Your task to perform on an android device: turn off priority inbox in the gmail app Image 0: 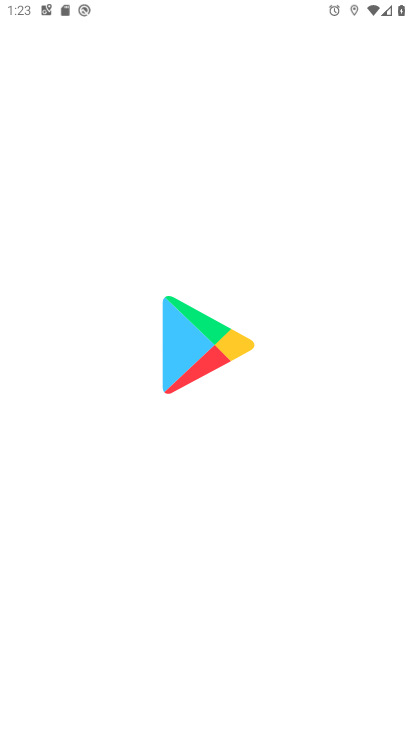
Step 0: press home button
Your task to perform on an android device: turn off priority inbox in the gmail app Image 1: 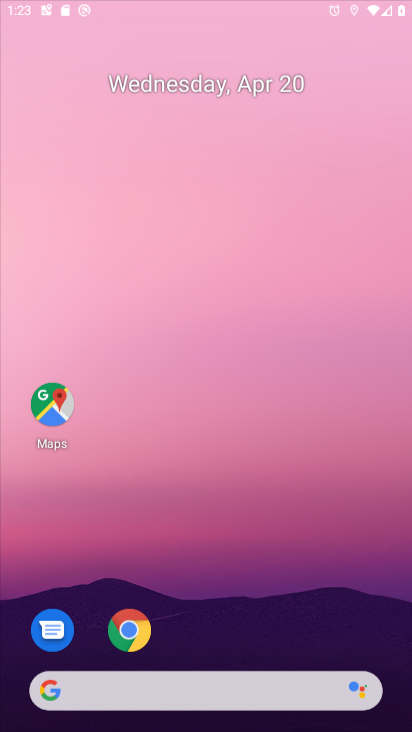
Step 1: press home button
Your task to perform on an android device: turn off priority inbox in the gmail app Image 2: 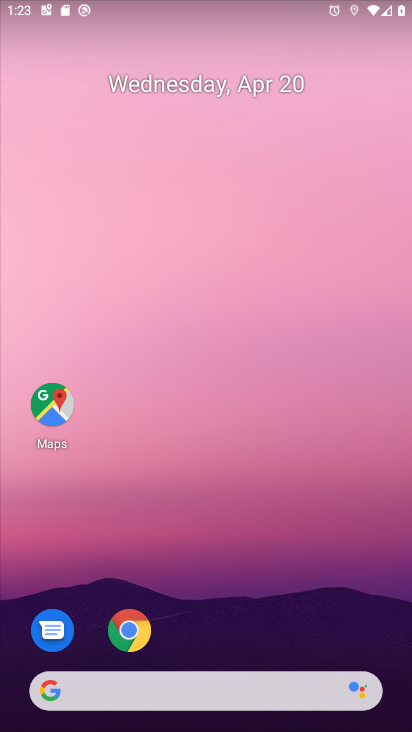
Step 2: drag from (227, 616) to (169, 87)
Your task to perform on an android device: turn off priority inbox in the gmail app Image 3: 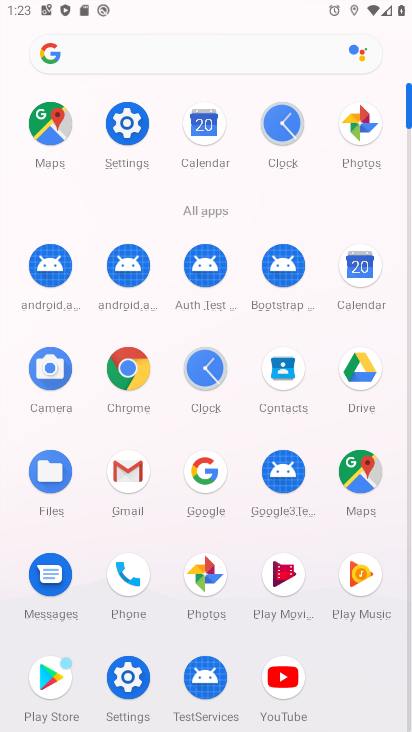
Step 3: click (131, 468)
Your task to perform on an android device: turn off priority inbox in the gmail app Image 4: 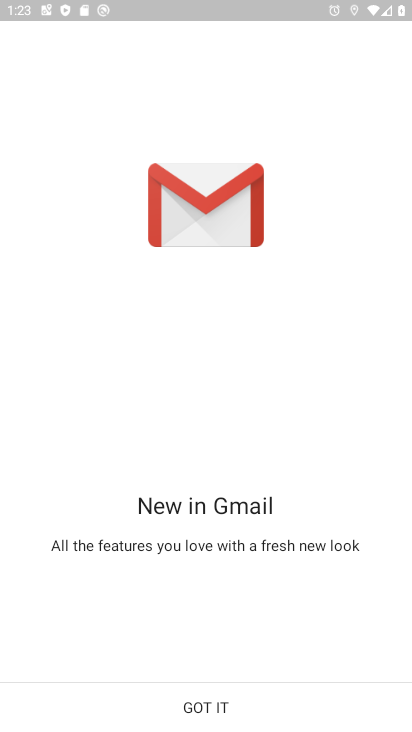
Step 4: click (203, 702)
Your task to perform on an android device: turn off priority inbox in the gmail app Image 5: 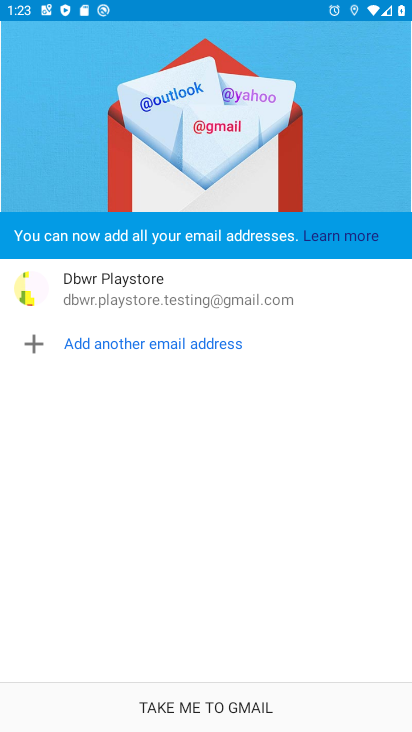
Step 5: click (203, 705)
Your task to perform on an android device: turn off priority inbox in the gmail app Image 6: 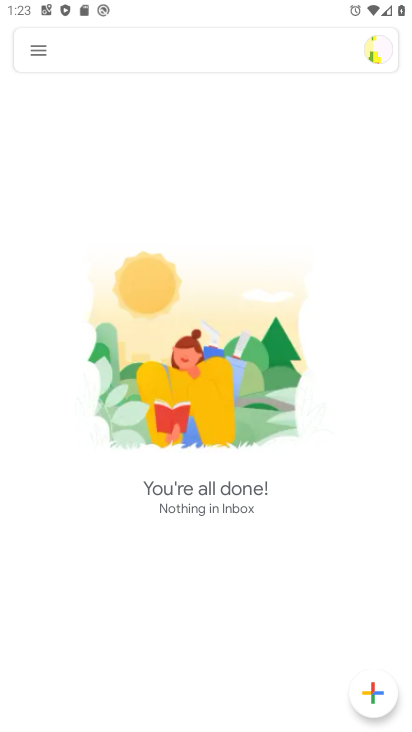
Step 6: click (41, 46)
Your task to perform on an android device: turn off priority inbox in the gmail app Image 7: 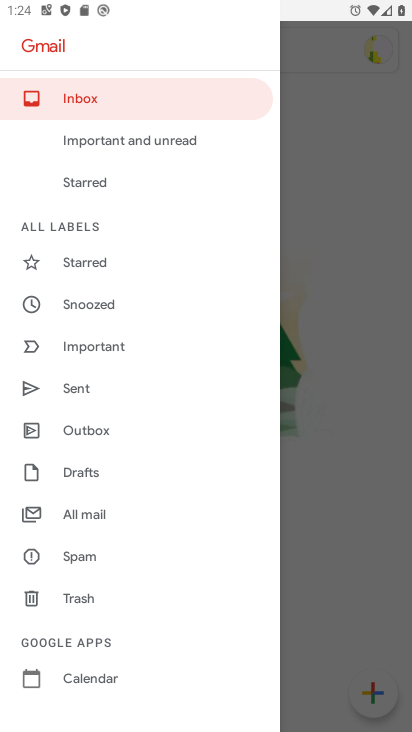
Step 7: drag from (133, 701) to (118, 219)
Your task to perform on an android device: turn off priority inbox in the gmail app Image 8: 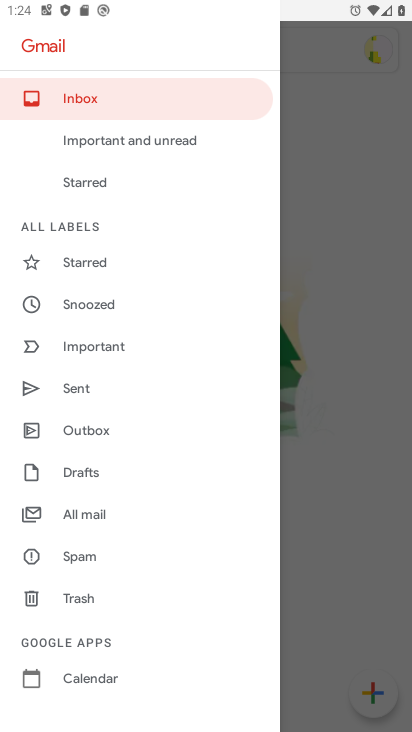
Step 8: drag from (65, 615) to (99, 270)
Your task to perform on an android device: turn off priority inbox in the gmail app Image 9: 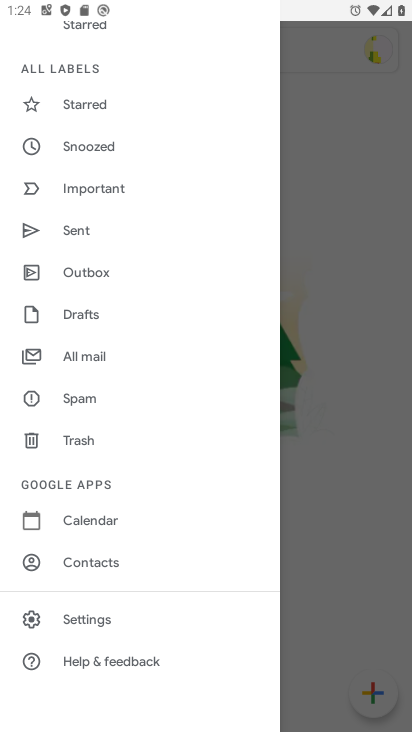
Step 9: click (90, 612)
Your task to perform on an android device: turn off priority inbox in the gmail app Image 10: 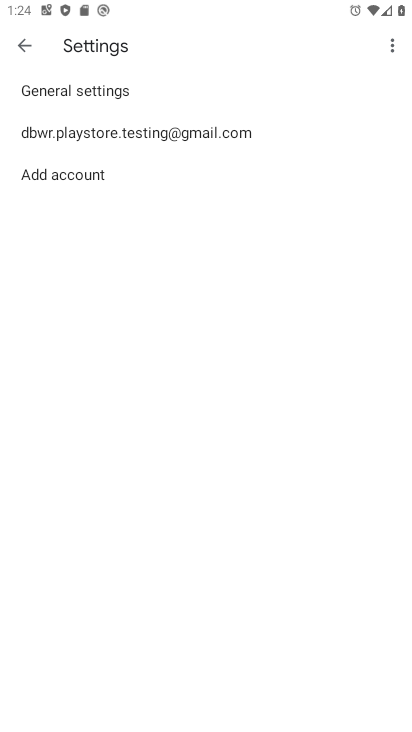
Step 10: click (171, 133)
Your task to perform on an android device: turn off priority inbox in the gmail app Image 11: 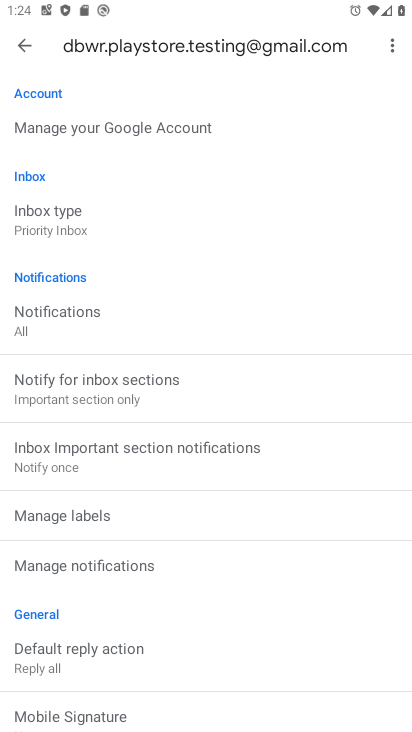
Step 11: click (37, 223)
Your task to perform on an android device: turn off priority inbox in the gmail app Image 12: 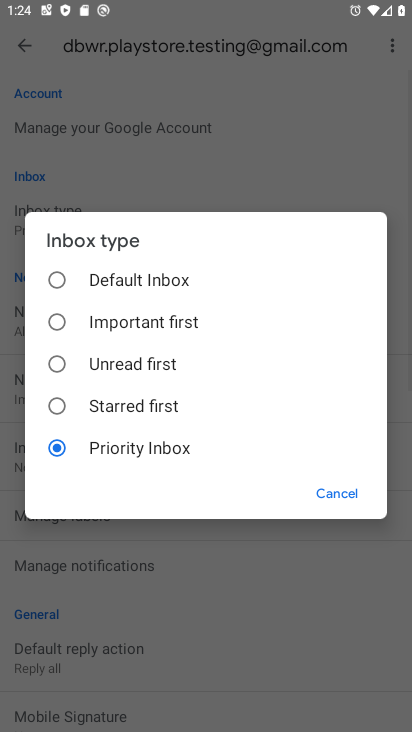
Step 12: click (66, 278)
Your task to perform on an android device: turn off priority inbox in the gmail app Image 13: 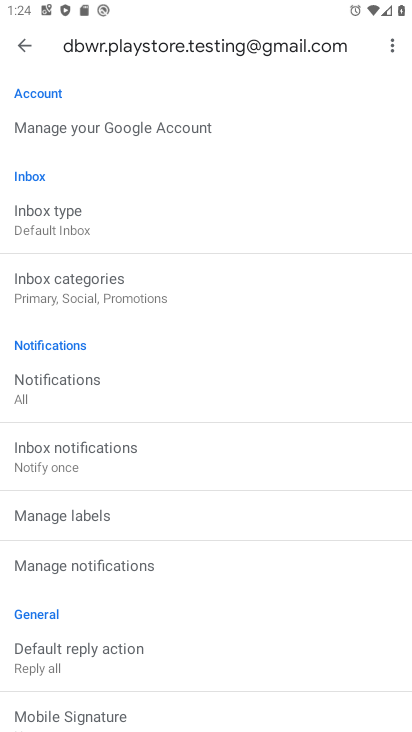
Step 13: task complete